Your task to perform on an android device: Show me productivity apps on the Play Store Image 0: 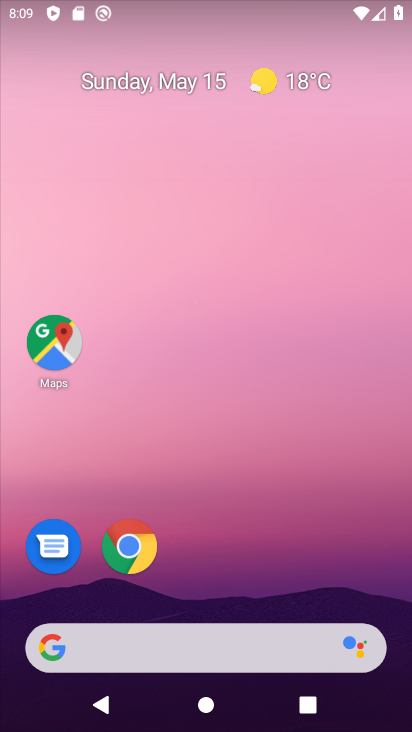
Step 0: drag from (300, 463) to (304, 241)
Your task to perform on an android device: Show me productivity apps on the Play Store Image 1: 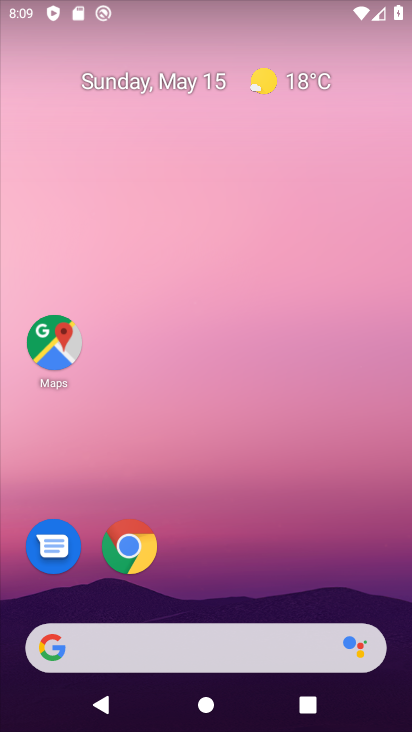
Step 1: drag from (158, 581) to (266, 246)
Your task to perform on an android device: Show me productivity apps on the Play Store Image 2: 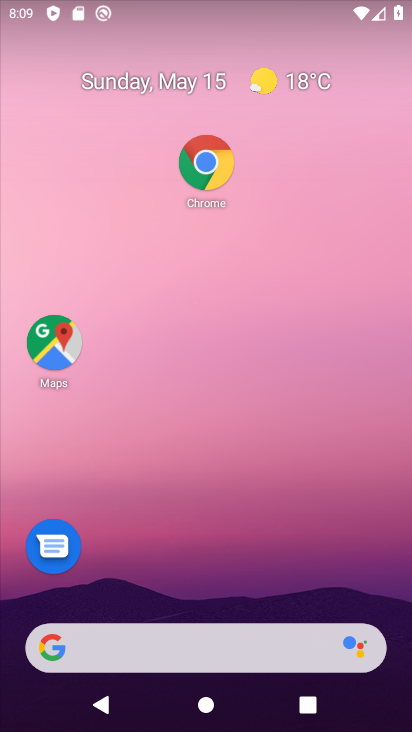
Step 2: drag from (268, 565) to (328, 218)
Your task to perform on an android device: Show me productivity apps on the Play Store Image 3: 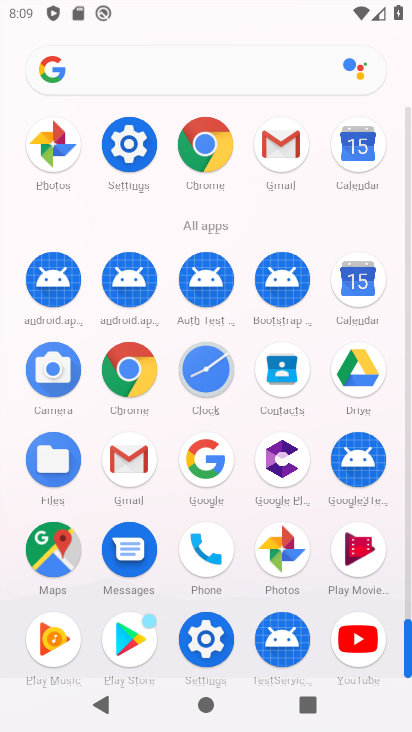
Step 3: drag from (167, 587) to (207, 335)
Your task to perform on an android device: Show me productivity apps on the Play Store Image 4: 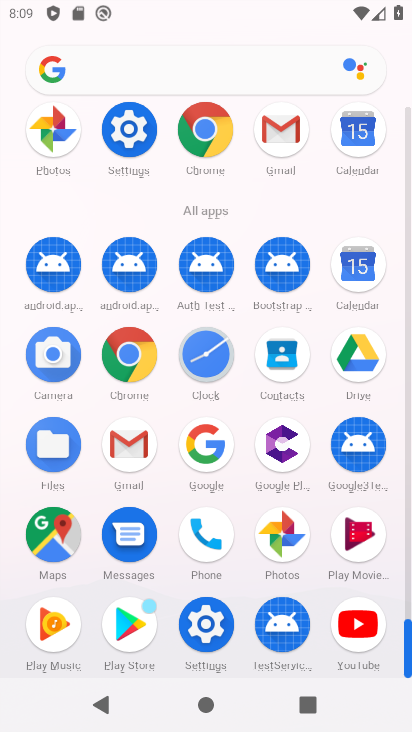
Step 4: click (118, 624)
Your task to perform on an android device: Show me productivity apps on the Play Store Image 5: 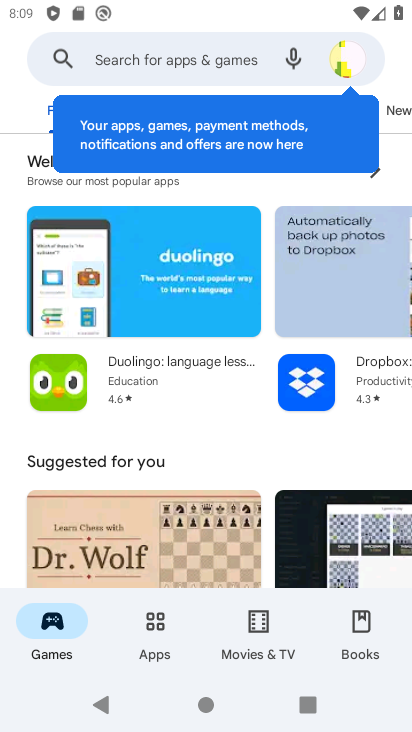
Step 5: click (148, 627)
Your task to perform on an android device: Show me productivity apps on the Play Store Image 6: 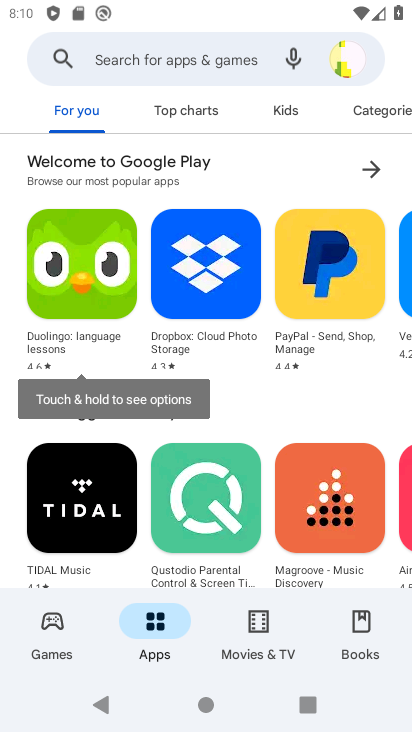
Step 6: task complete